Your task to perform on an android device: What is the news today? Image 0: 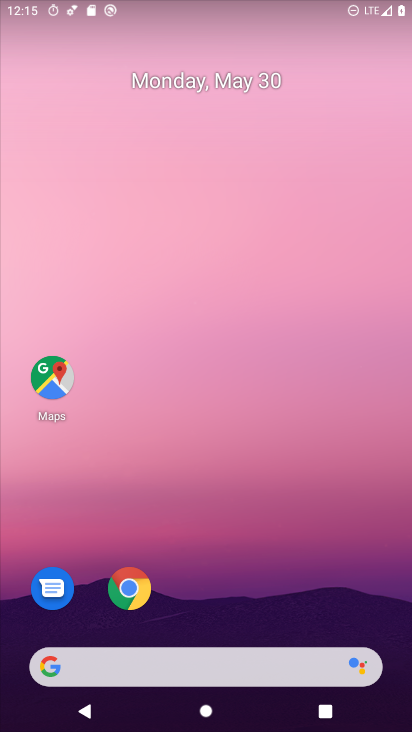
Step 0: drag from (255, 577) to (345, 195)
Your task to perform on an android device: What is the news today? Image 1: 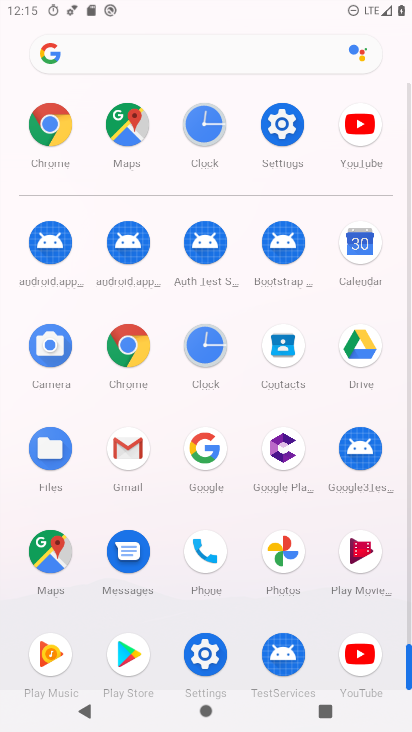
Step 1: click (207, 446)
Your task to perform on an android device: What is the news today? Image 2: 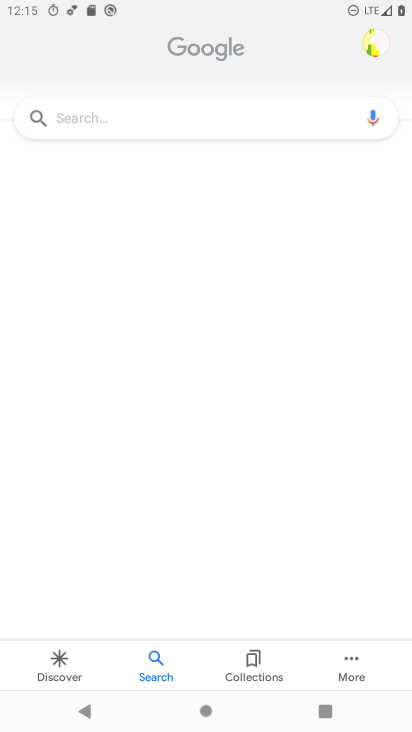
Step 2: click (66, 654)
Your task to perform on an android device: What is the news today? Image 3: 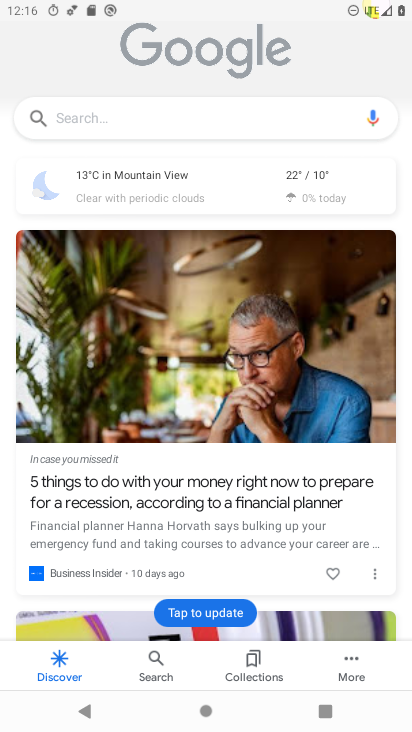
Step 3: task complete